Your task to perform on an android device: turn on priority inbox in the gmail app Image 0: 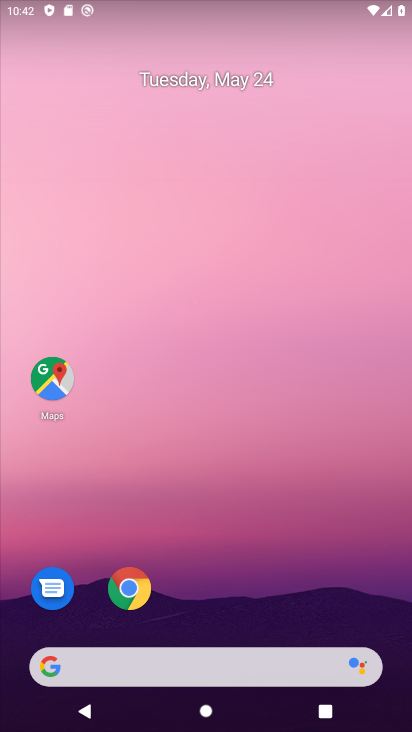
Step 0: drag from (240, 617) to (175, 44)
Your task to perform on an android device: turn on priority inbox in the gmail app Image 1: 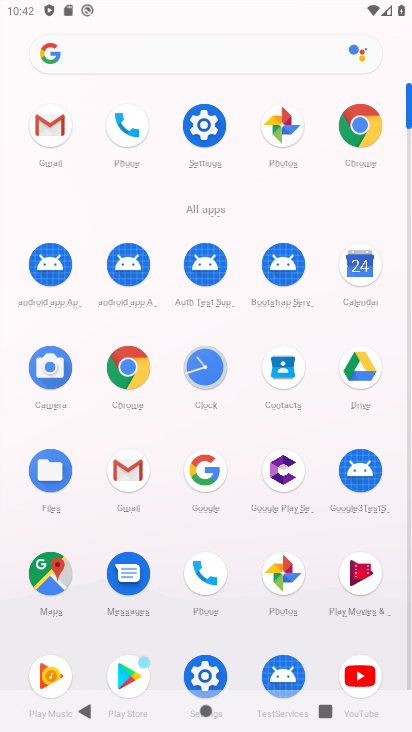
Step 1: click (55, 114)
Your task to perform on an android device: turn on priority inbox in the gmail app Image 2: 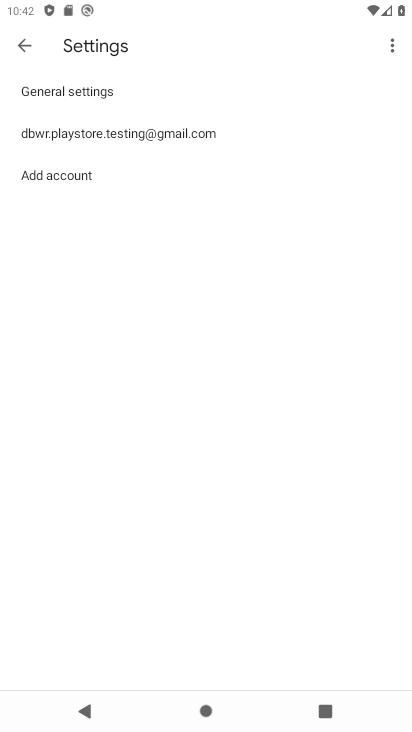
Step 2: click (72, 130)
Your task to perform on an android device: turn on priority inbox in the gmail app Image 3: 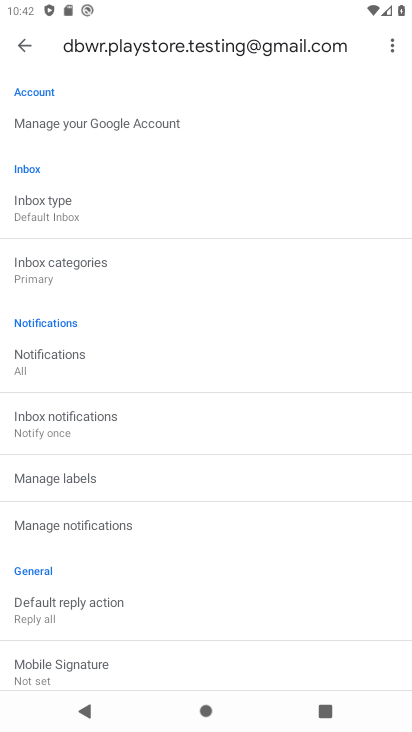
Step 3: click (82, 212)
Your task to perform on an android device: turn on priority inbox in the gmail app Image 4: 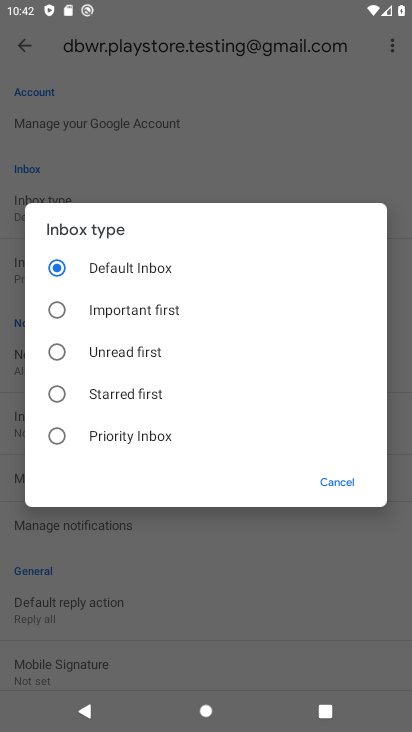
Step 4: click (122, 435)
Your task to perform on an android device: turn on priority inbox in the gmail app Image 5: 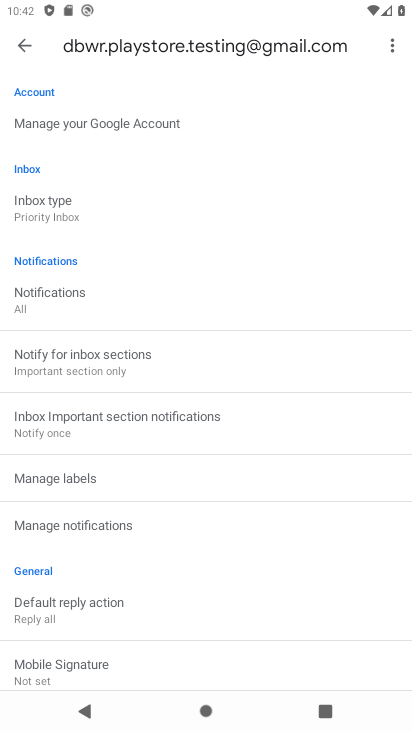
Step 5: task complete